Your task to perform on an android device: turn off javascript in the chrome app Image 0: 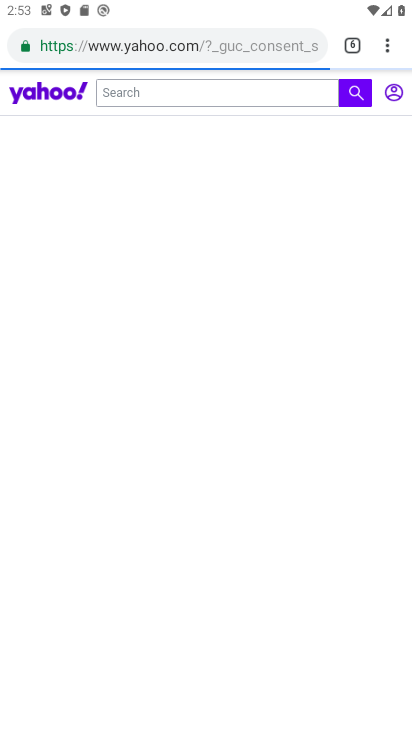
Step 0: drag from (386, 45) to (244, 506)
Your task to perform on an android device: turn off javascript in the chrome app Image 1: 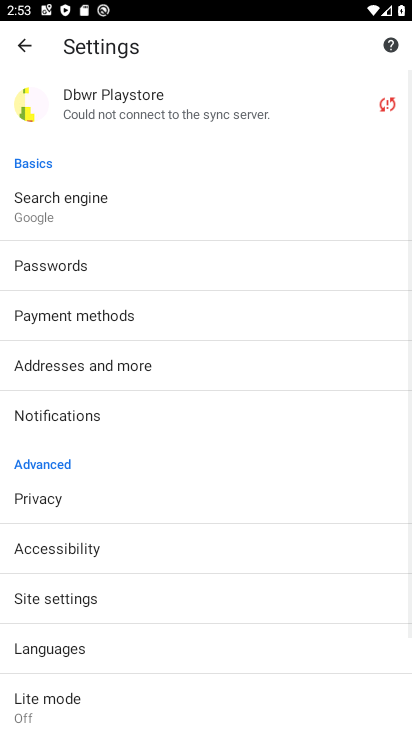
Step 1: click (36, 598)
Your task to perform on an android device: turn off javascript in the chrome app Image 2: 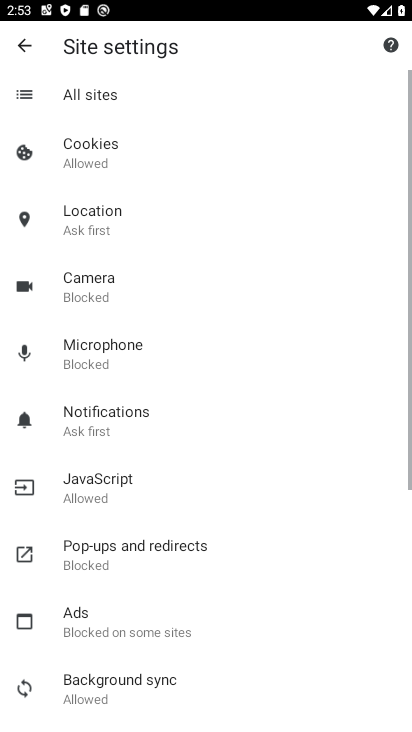
Step 2: click (72, 494)
Your task to perform on an android device: turn off javascript in the chrome app Image 3: 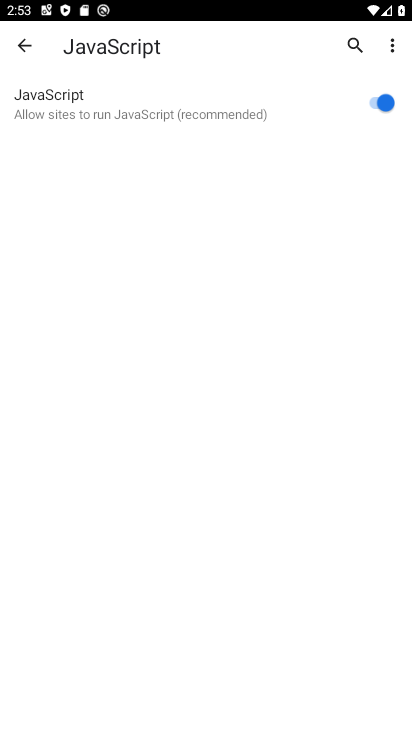
Step 3: click (388, 105)
Your task to perform on an android device: turn off javascript in the chrome app Image 4: 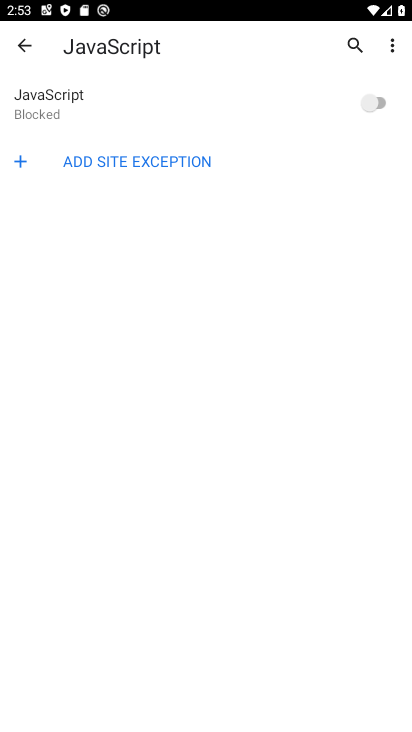
Step 4: task complete